Your task to perform on an android device: Go to Reddit.com Image 0: 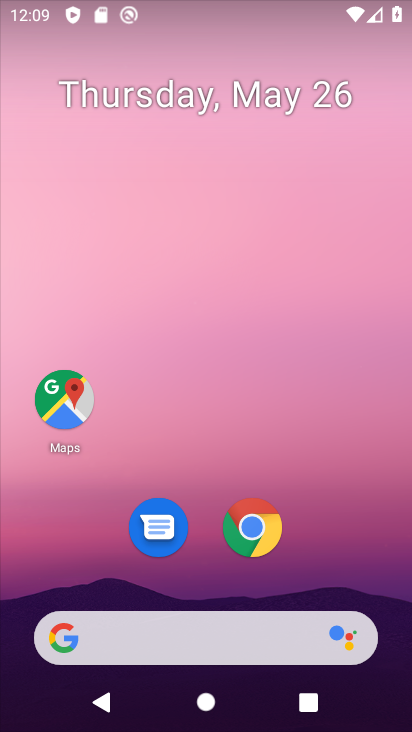
Step 0: click (165, 646)
Your task to perform on an android device: Go to Reddit.com Image 1: 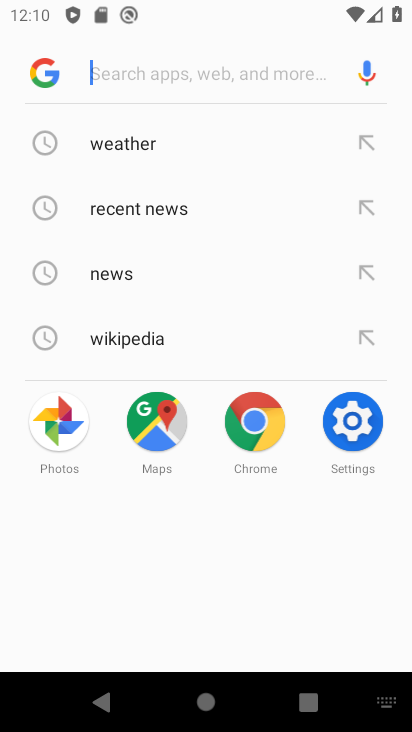
Step 1: type "reddit"
Your task to perform on an android device: Go to Reddit.com Image 2: 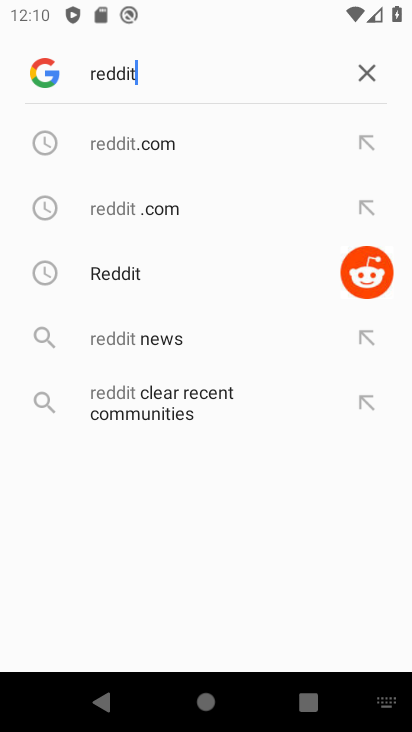
Step 2: click (161, 149)
Your task to perform on an android device: Go to Reddit.com Image 3: 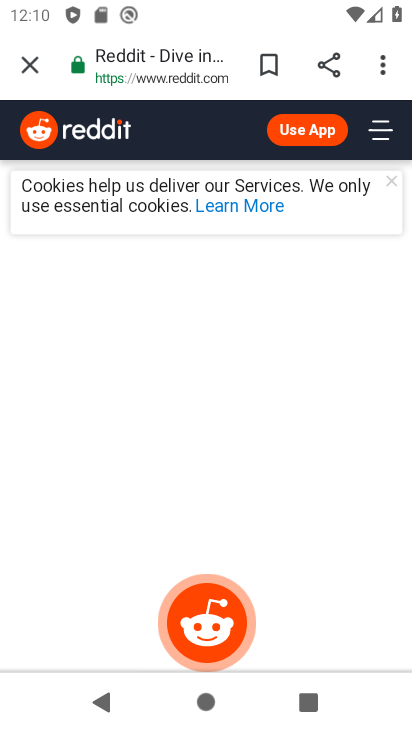
Step 3: task complete